Your task to perform on an android device: Go to eBay Image 0: 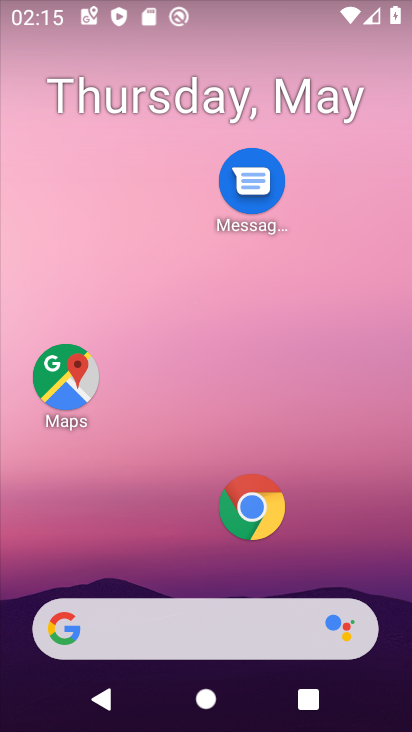
Step 0: drag from (282, 642) to (263, 8)
Your task to perform on an android device: Go to eBay Image 1: 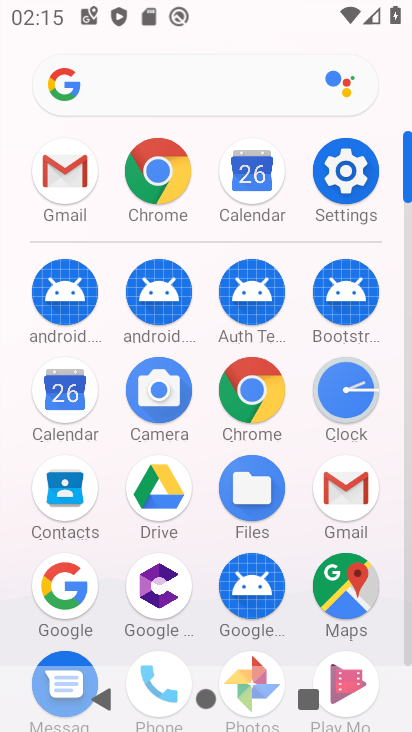
Step 1: click (263, 404)
Your task to perform on an android device: Go to eBay Image 2: 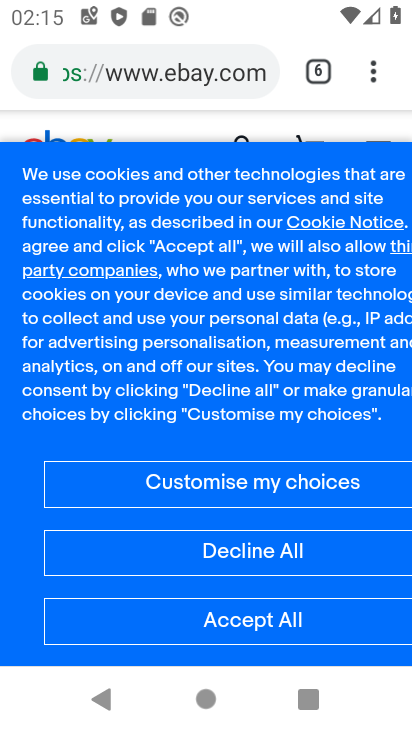
Step 2: task complete